Your task to perform on an android device: What's the news today? Image 0: 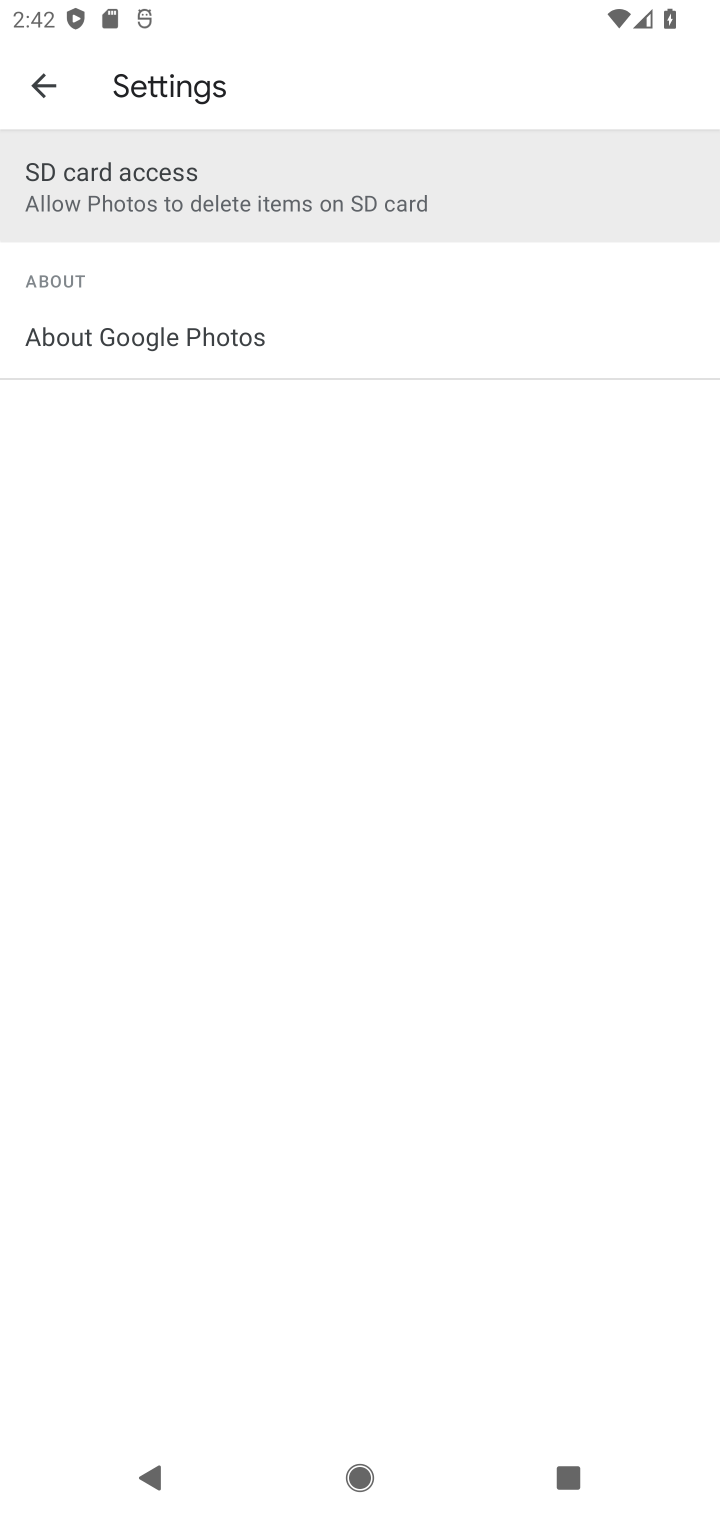
Step 0: press home button
Your task to perform on an android device: What's the news today? Image 1: 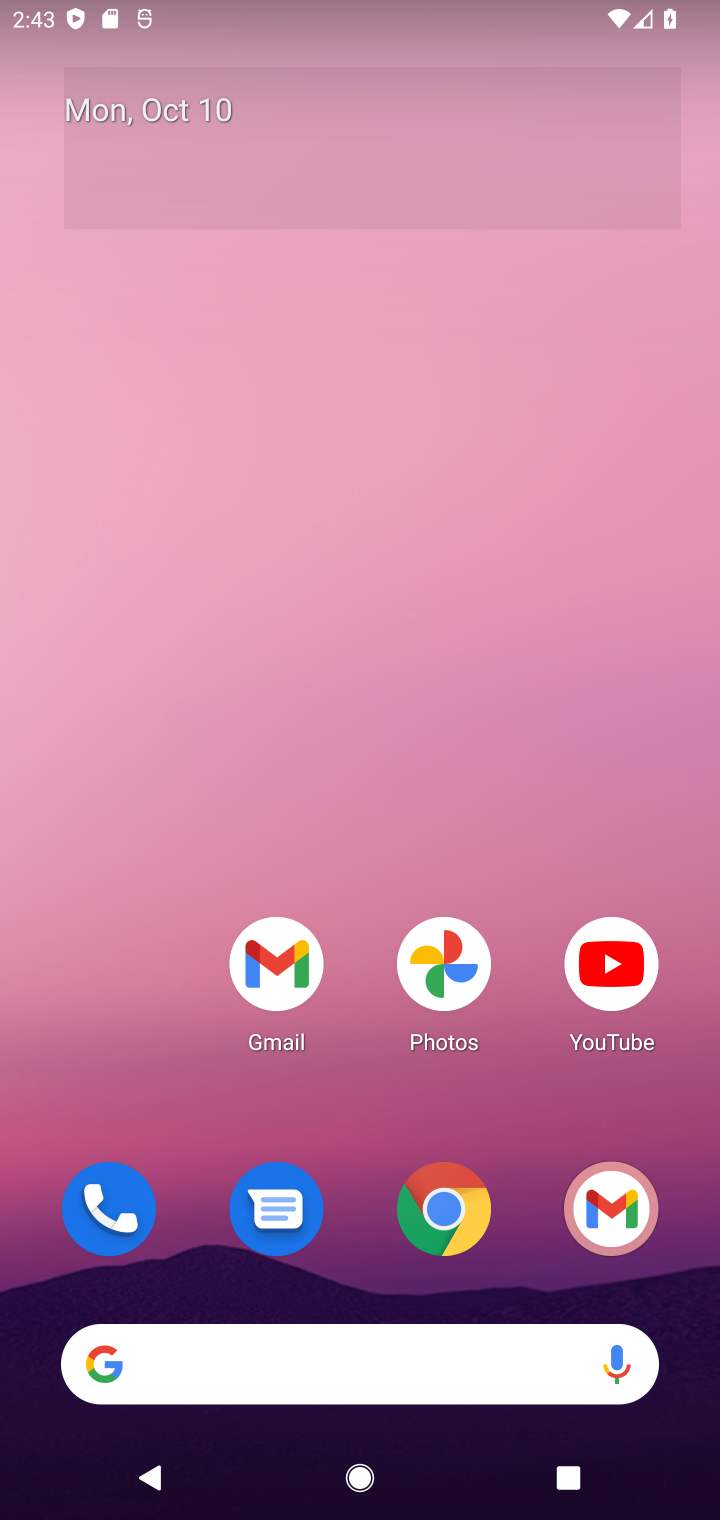
Step 1: click (444, 1202)
Your task to perform on an android device: What's the news today? Image 2: 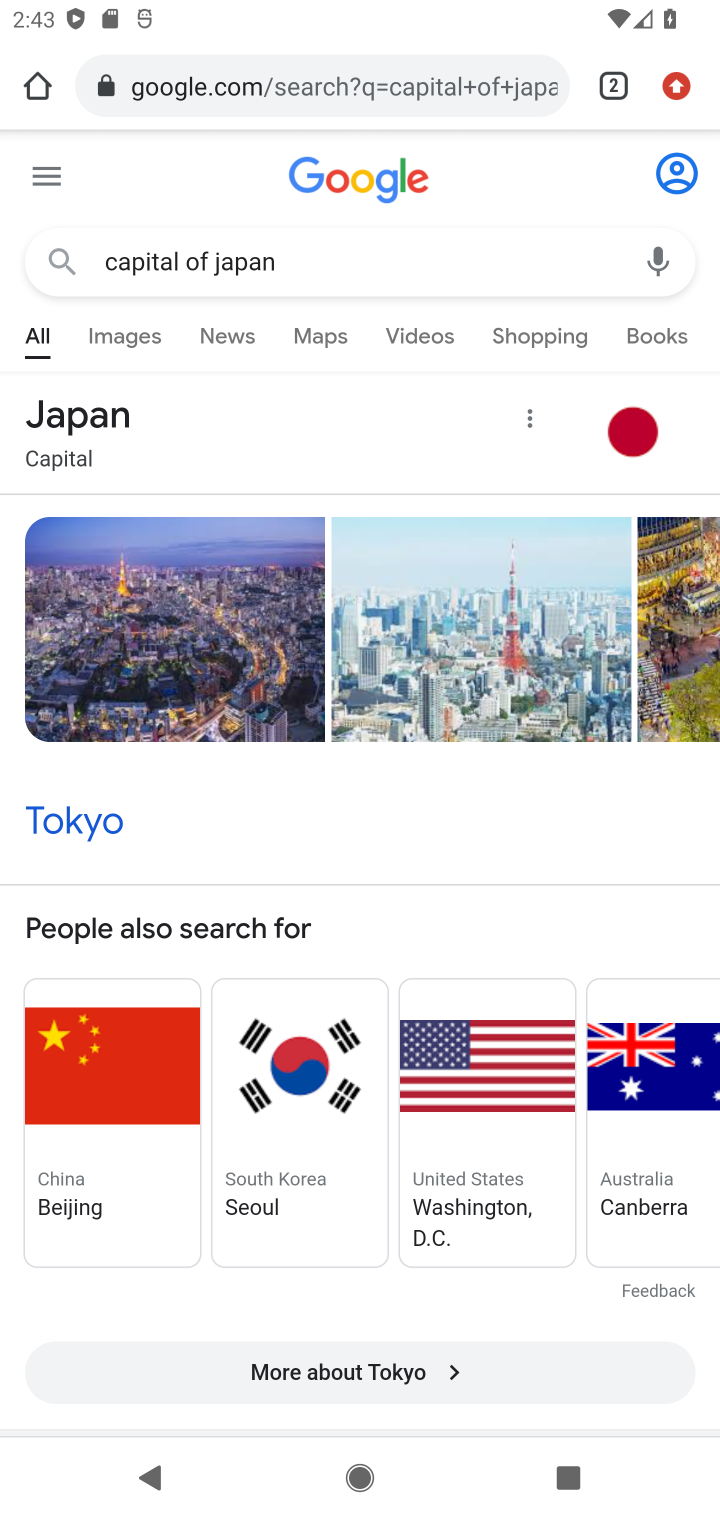
Step 2: click (314, 261)
Your task to perform on an android device: What's the news today? Image 3: 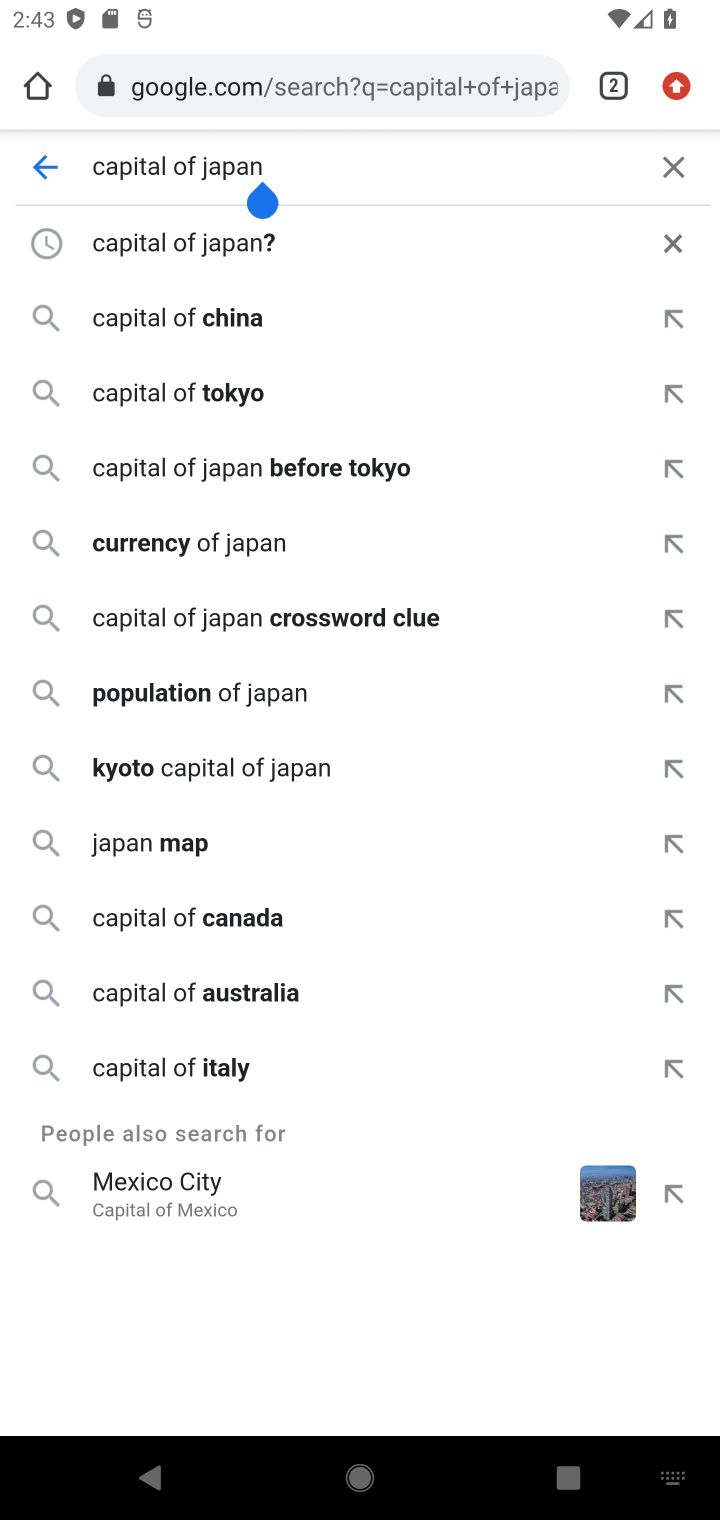
Step 3: click (676, 146)
Your task to perform on an android device: What's the news today? Image 4: 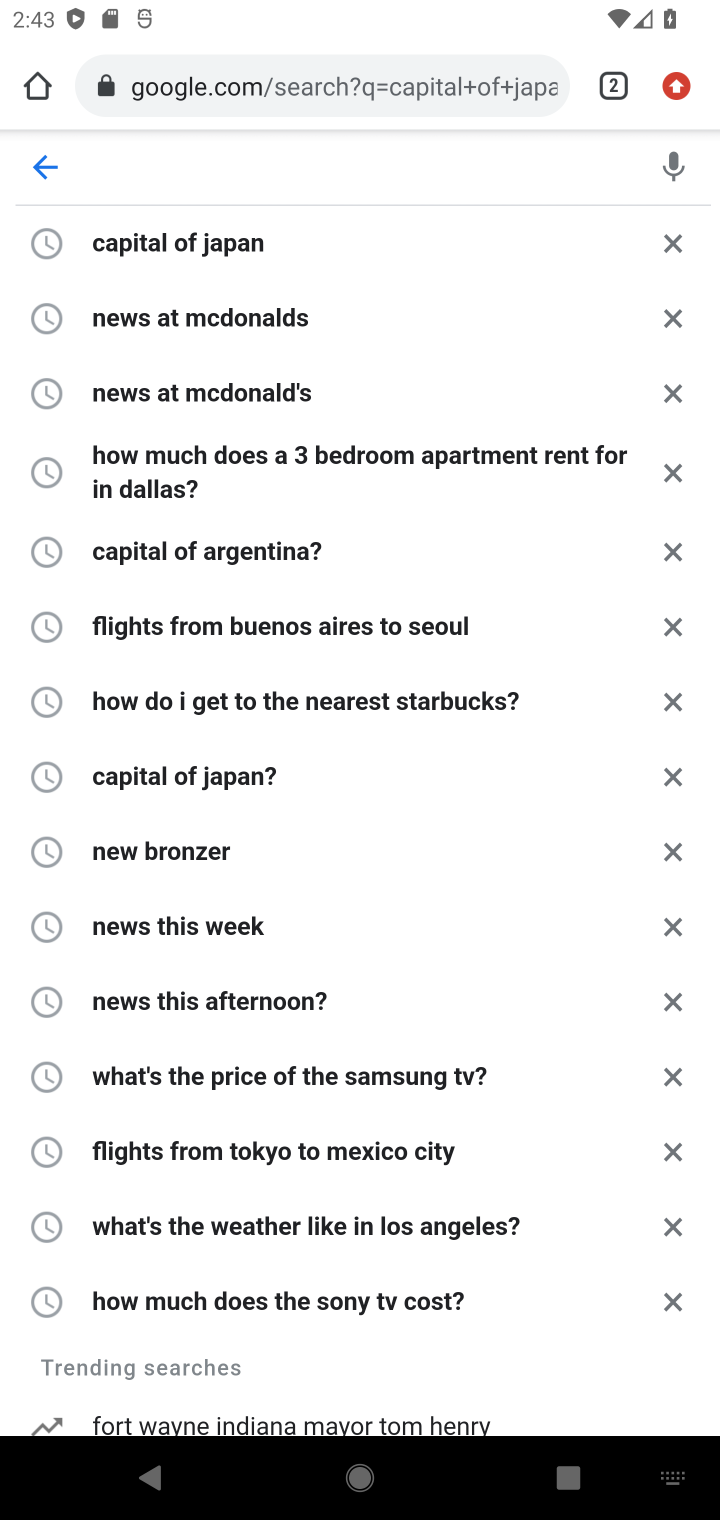
Step 4: click (43, 157)
Your task to perform on an android device: What's the news today? Image 5: 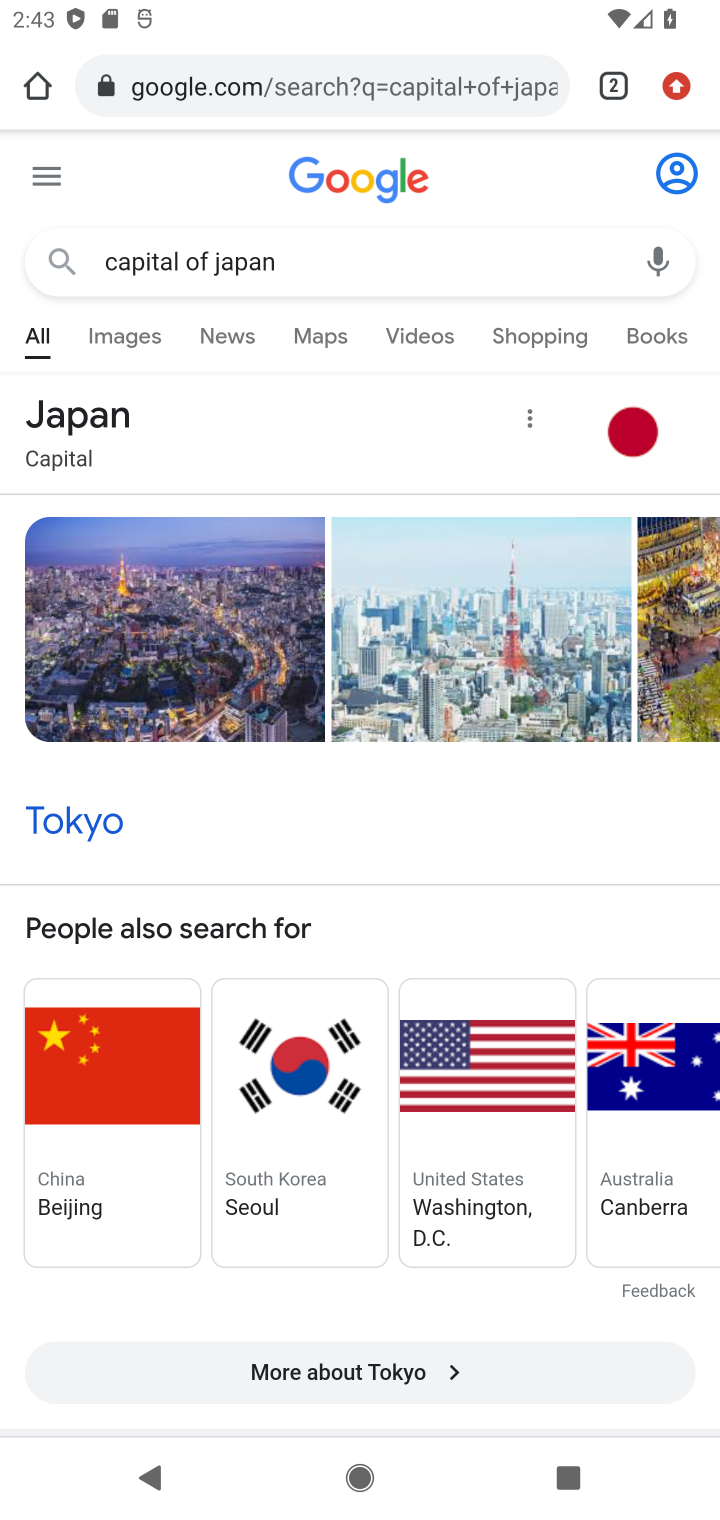
Step 5: click (214, 336)
Your task to perform on an android device: What's the news today? Image 6: 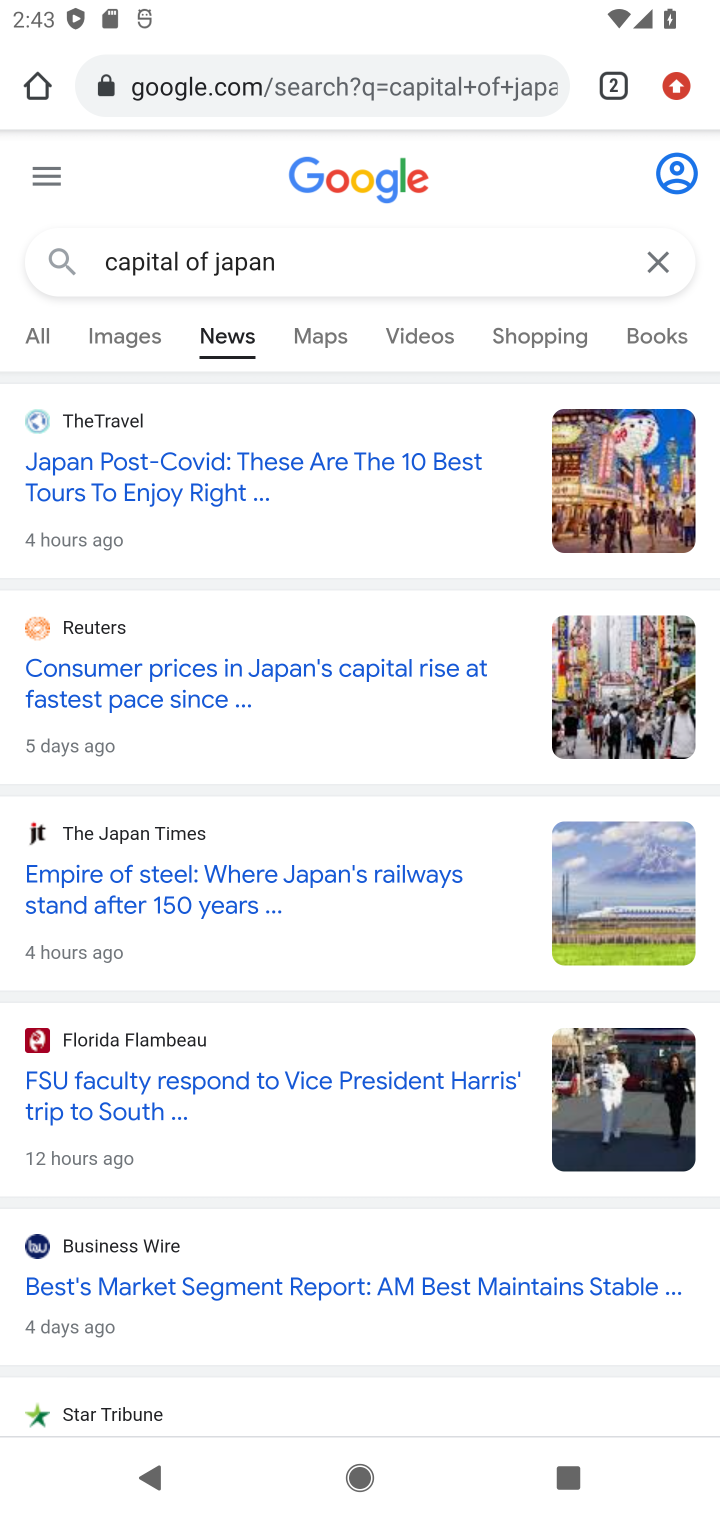
Step 6: task complete